Your task to perform on an android device: find snoozed emails in the gmail app Image 0: 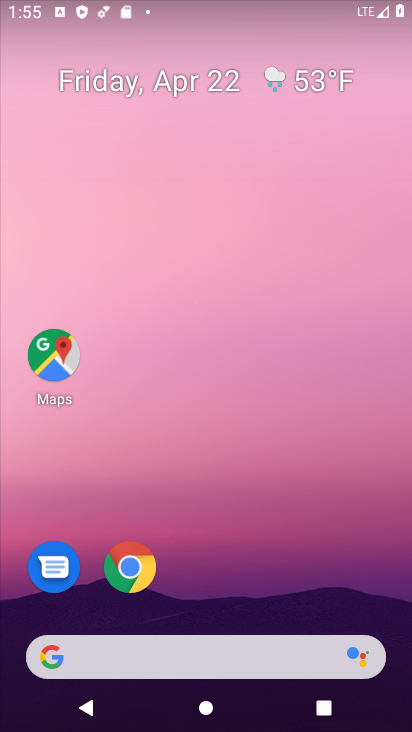
Step 0: drag from (397, 632) to (314, 143)
Your task to perform on an android device: find snoozed emails in the gmail app Image 1: 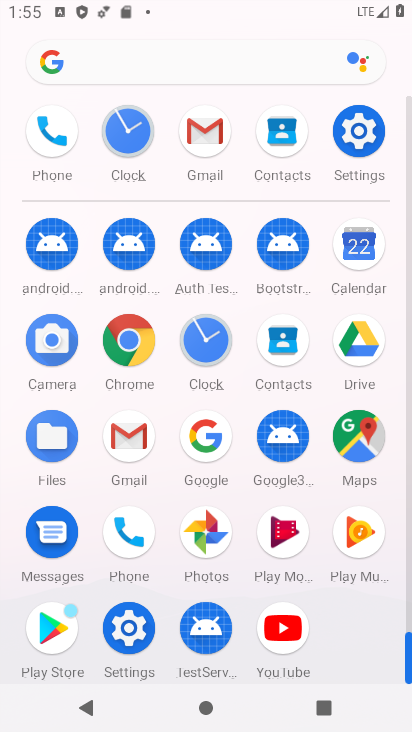
Step 1: click (126, 436)
Your task to perform on an android device: find snoozed emails in the gmail app Image 2: 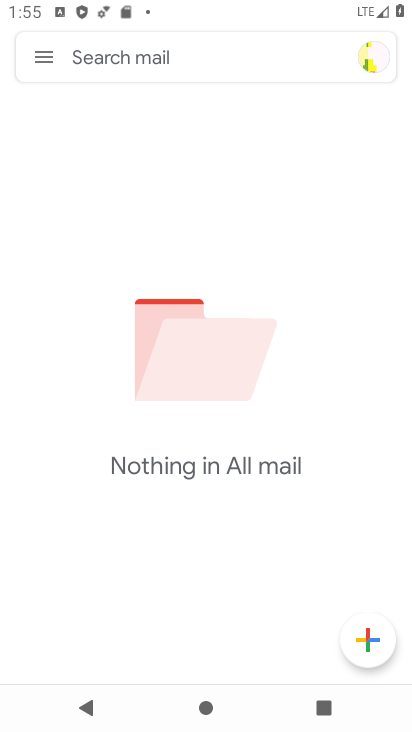
Step 2: click (47, 51)
Your task to perform on an android device: find snoozed emails in the gmail app Image 3: 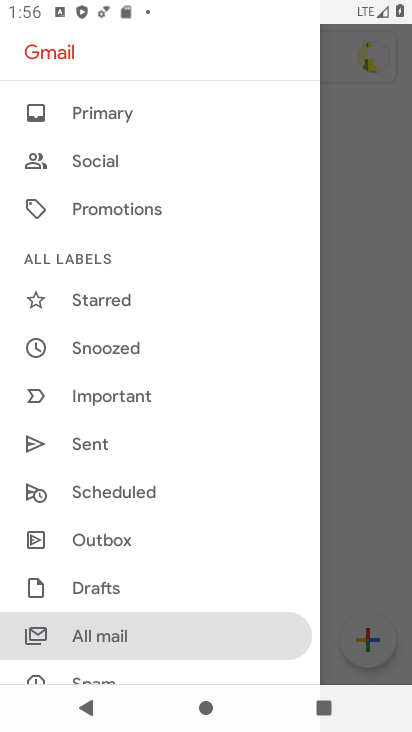
Step 3: click (119, 355)
Your task to perform on an android device: find snoozed emails in the gmail app Image 4: 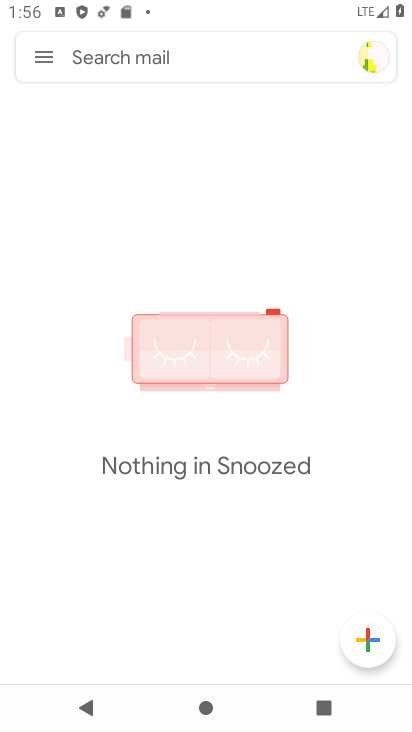
Step 4: task complete